Your task to perform on an android device: turn off location history Image 0: 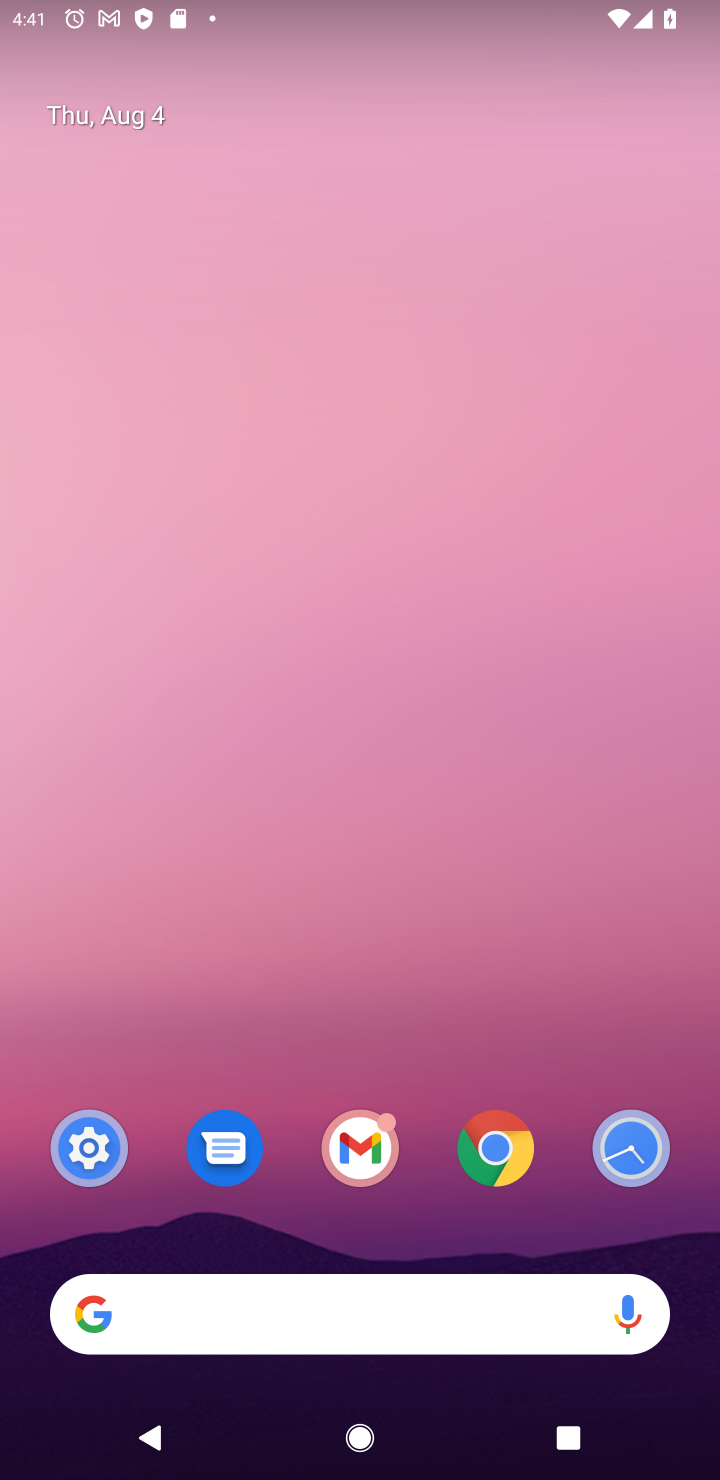
Step 0: drag from (560, 1219) to (527, 438)
Your task to perform on an android device: turn off location history Image 1: 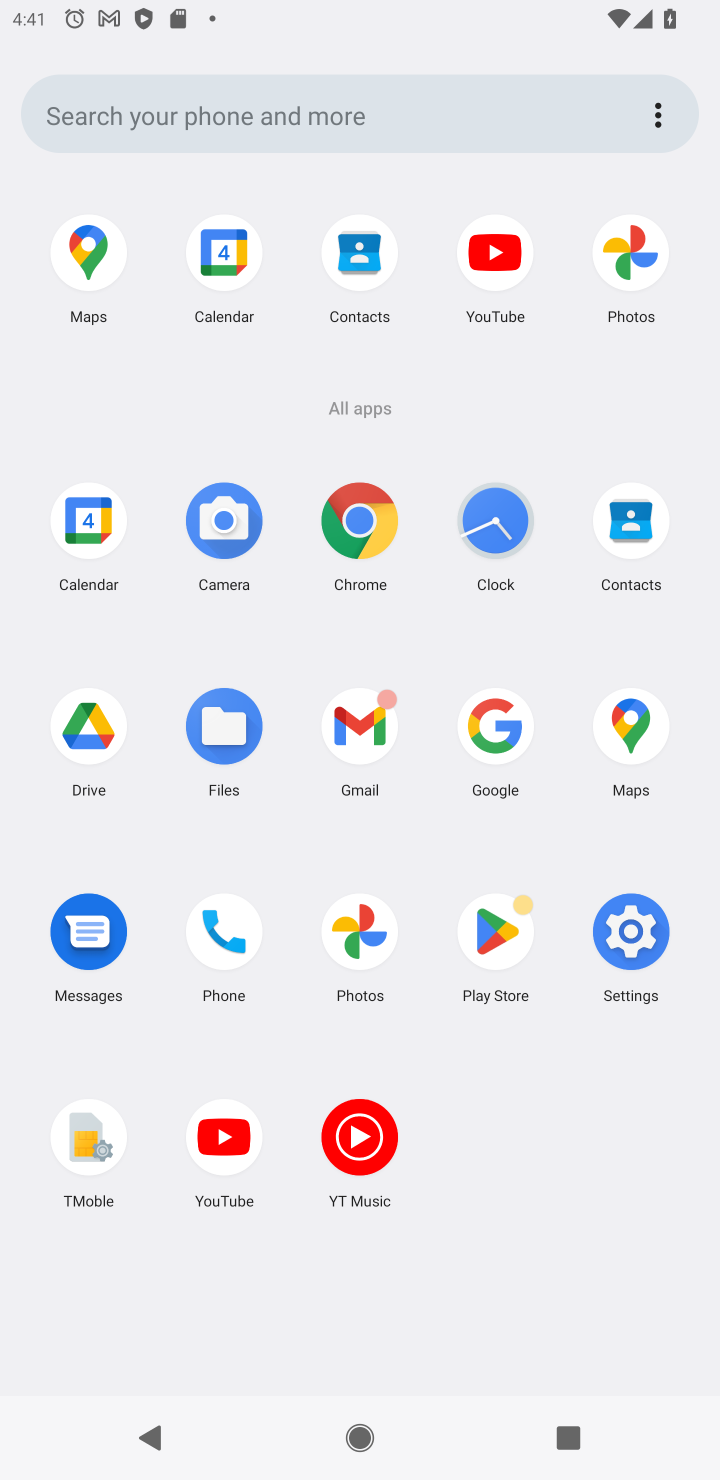
Step 1: click (636, 715)
Your task to perform on an android device: turn off location history Image 2: 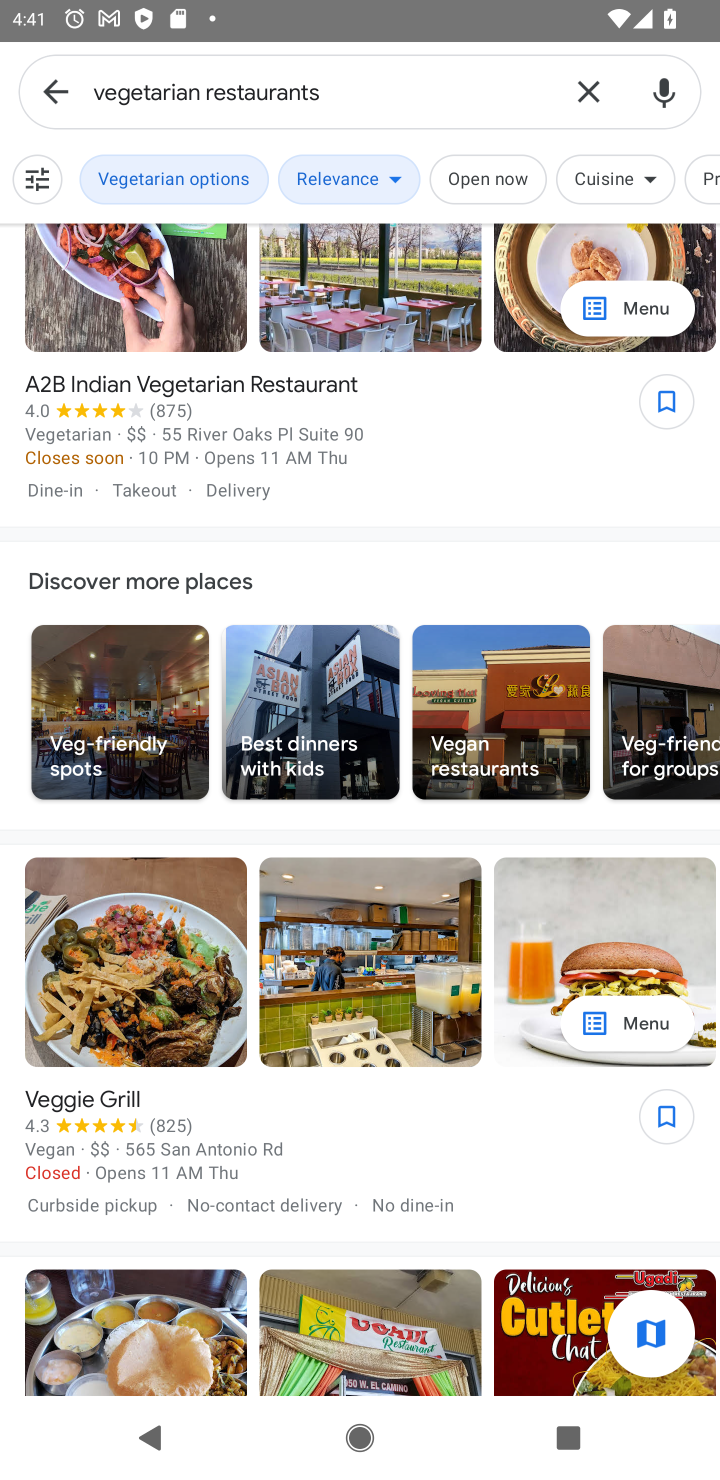
Step 2: click (585, 87)
Your task to perform on an android device: turn off location history Image 3: 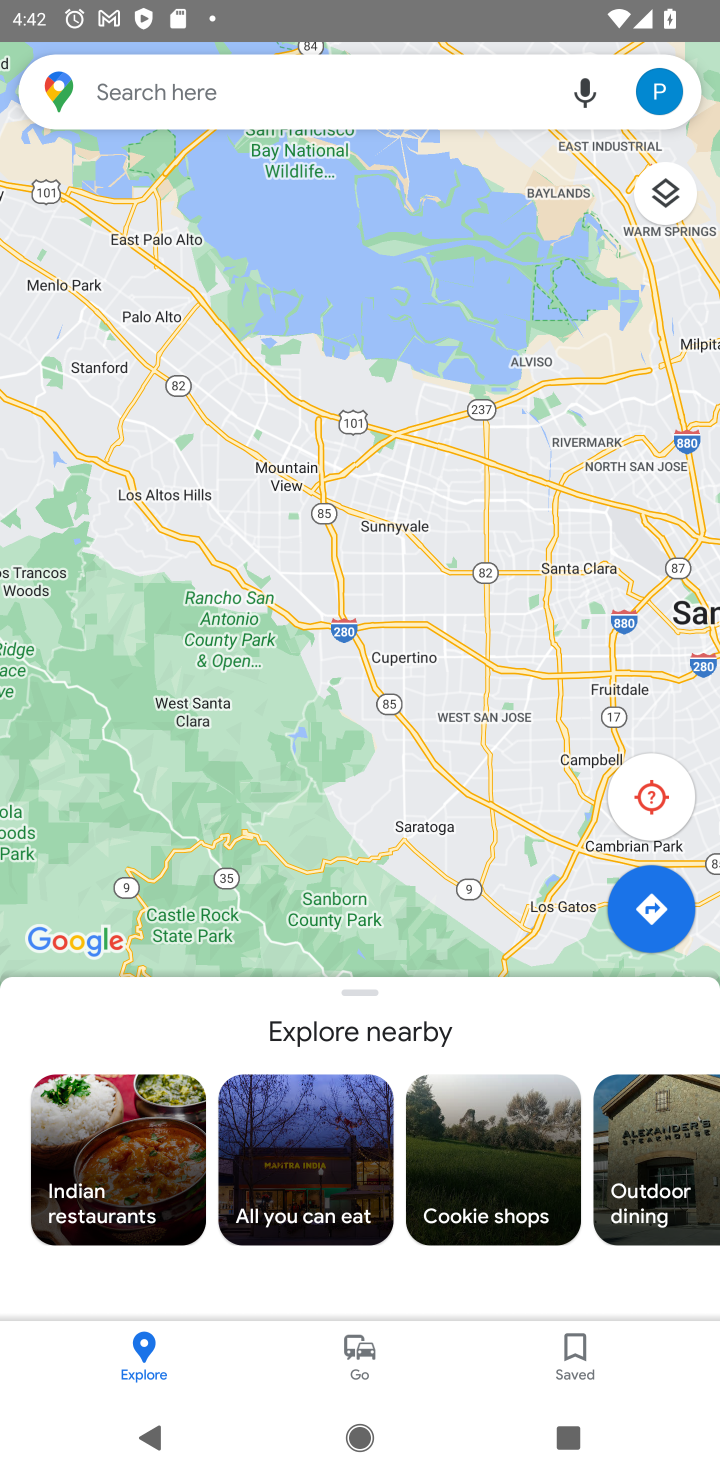
Step 3: click (654, 93)
Your task to perform on an android device: turn off location history Image 4: 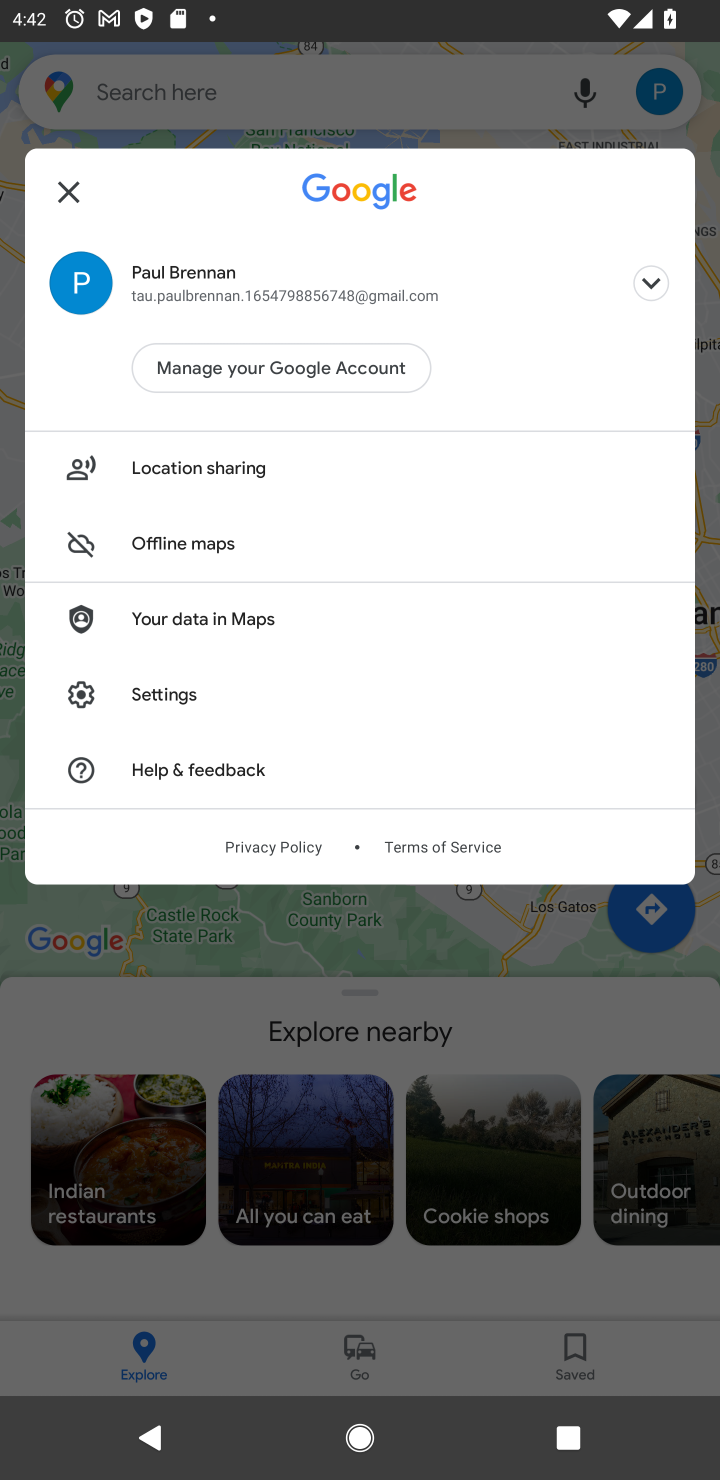
Step 4: click (145, 688)
Your task to perform on an android device: turn off location history Image 5: 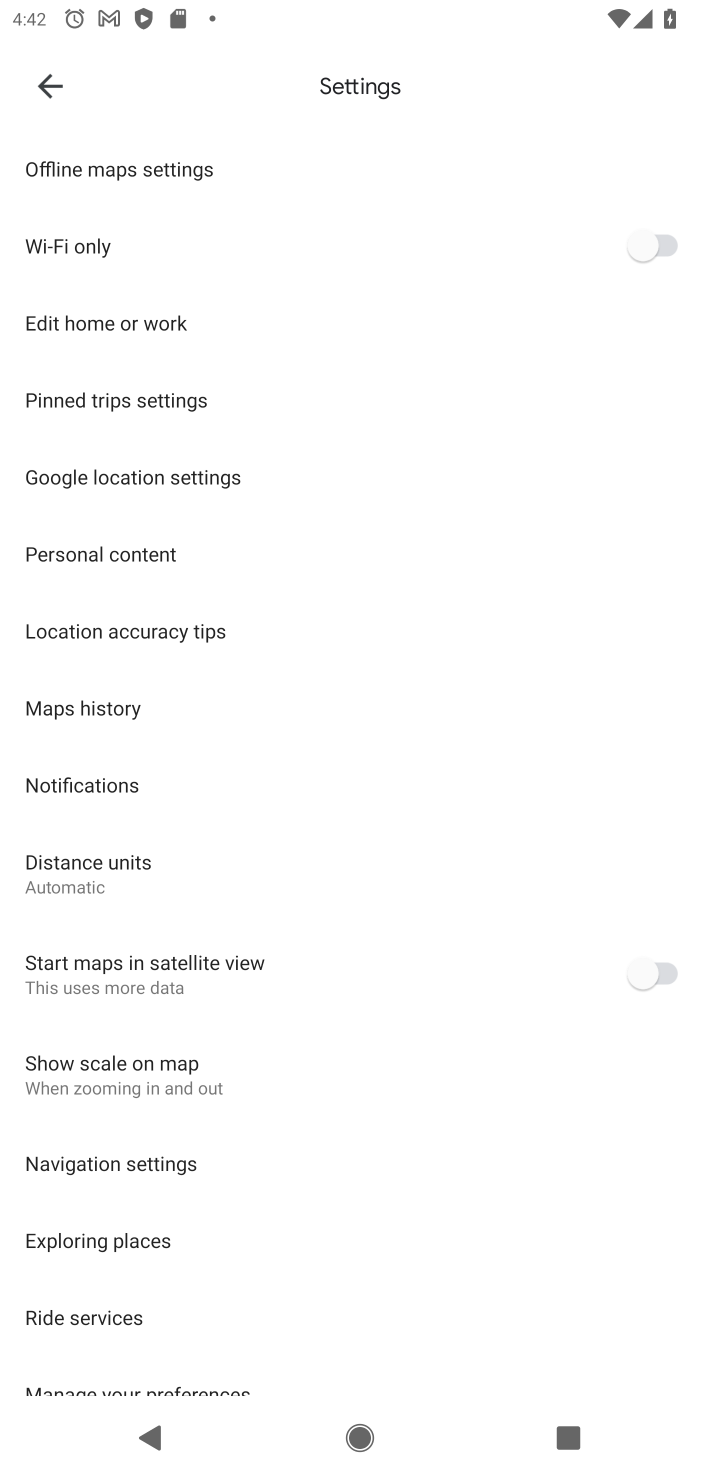
Step 5: click (98, 552)
Your task to perform on an android device: turn off location history Image 6: 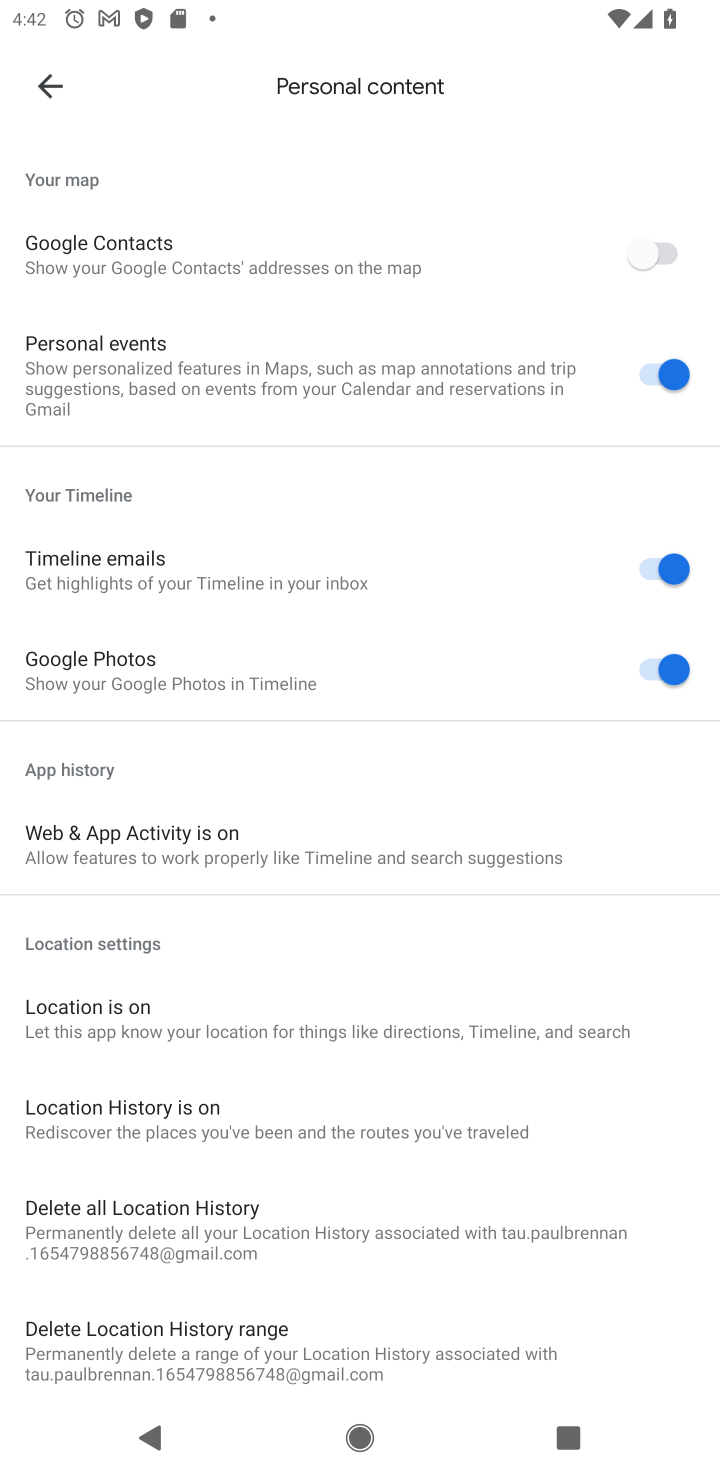
Step 6: drag from (561, 1197) to (545, 537)
Your task to perform on an android device: turn off location history Image 7: 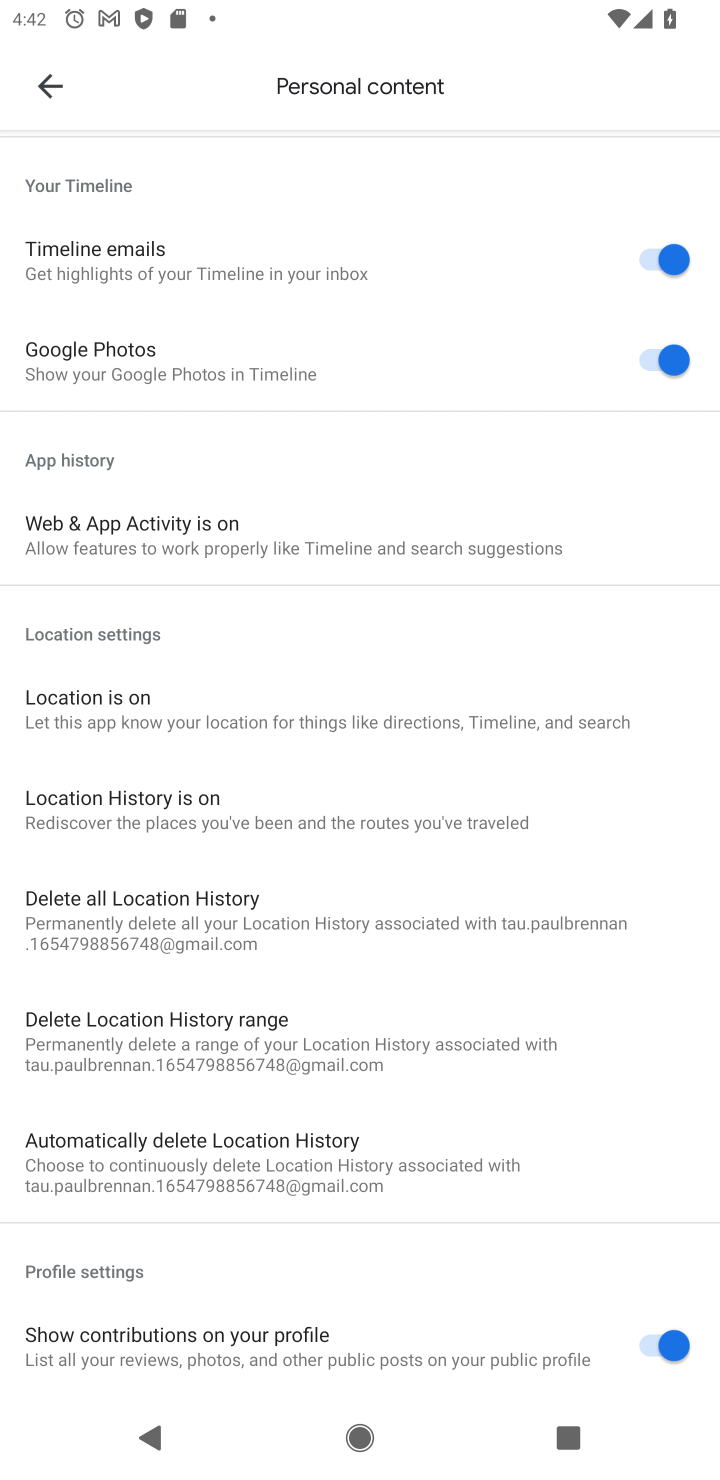
Step 7: click (127, 800)
Your task to perform on an android device: turn off location history Image 8: 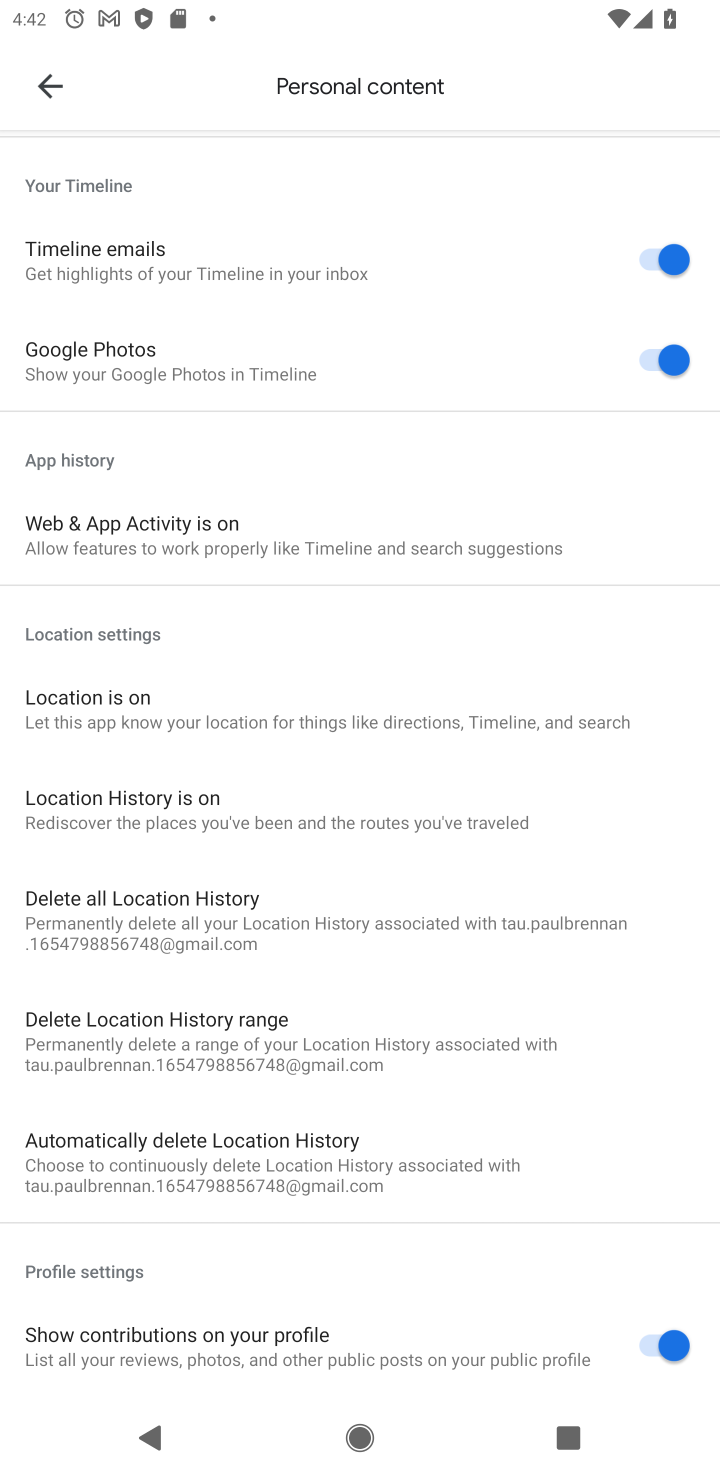
Step 8: click (128, 810)
Your task to perform on an android device: turn off location history Image 9: 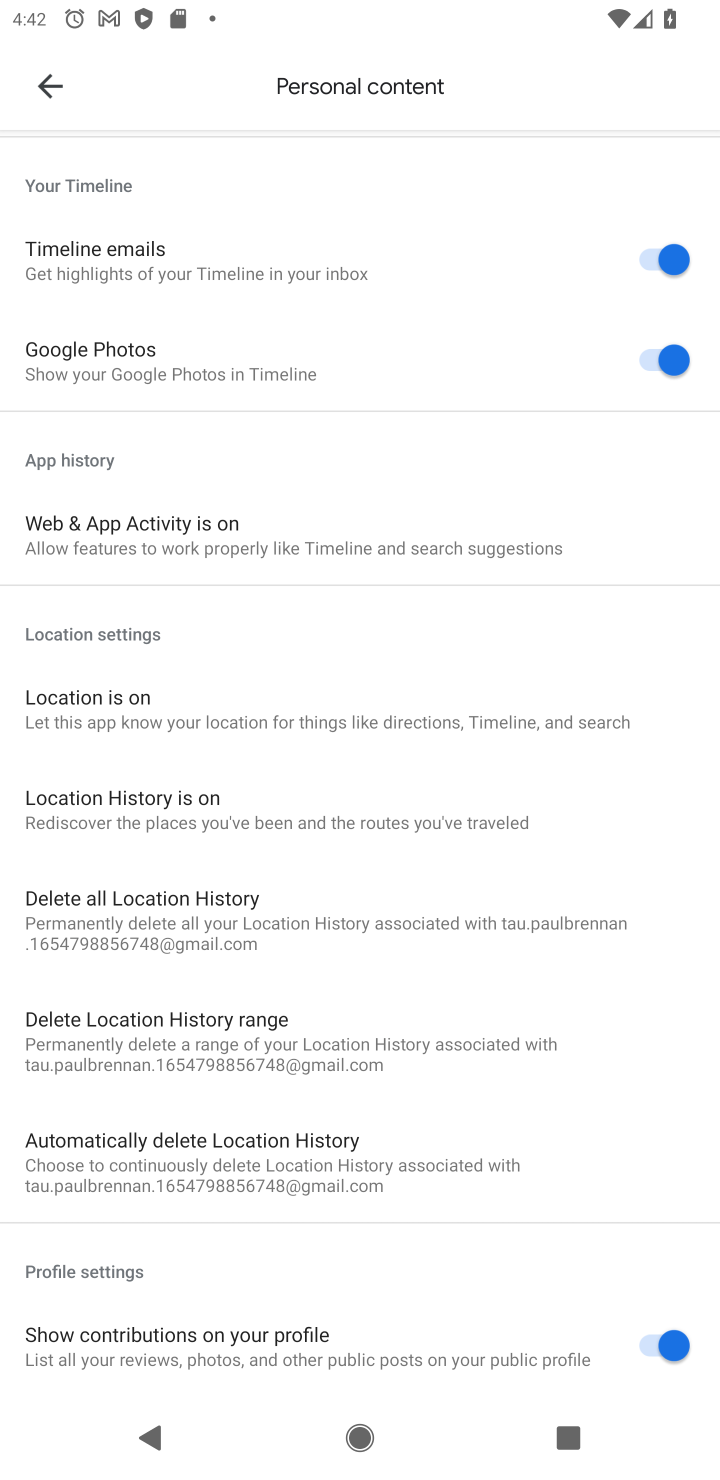
Step 9: click (147, 794)
Your task to perform on an android device: turn off location history Image 10: 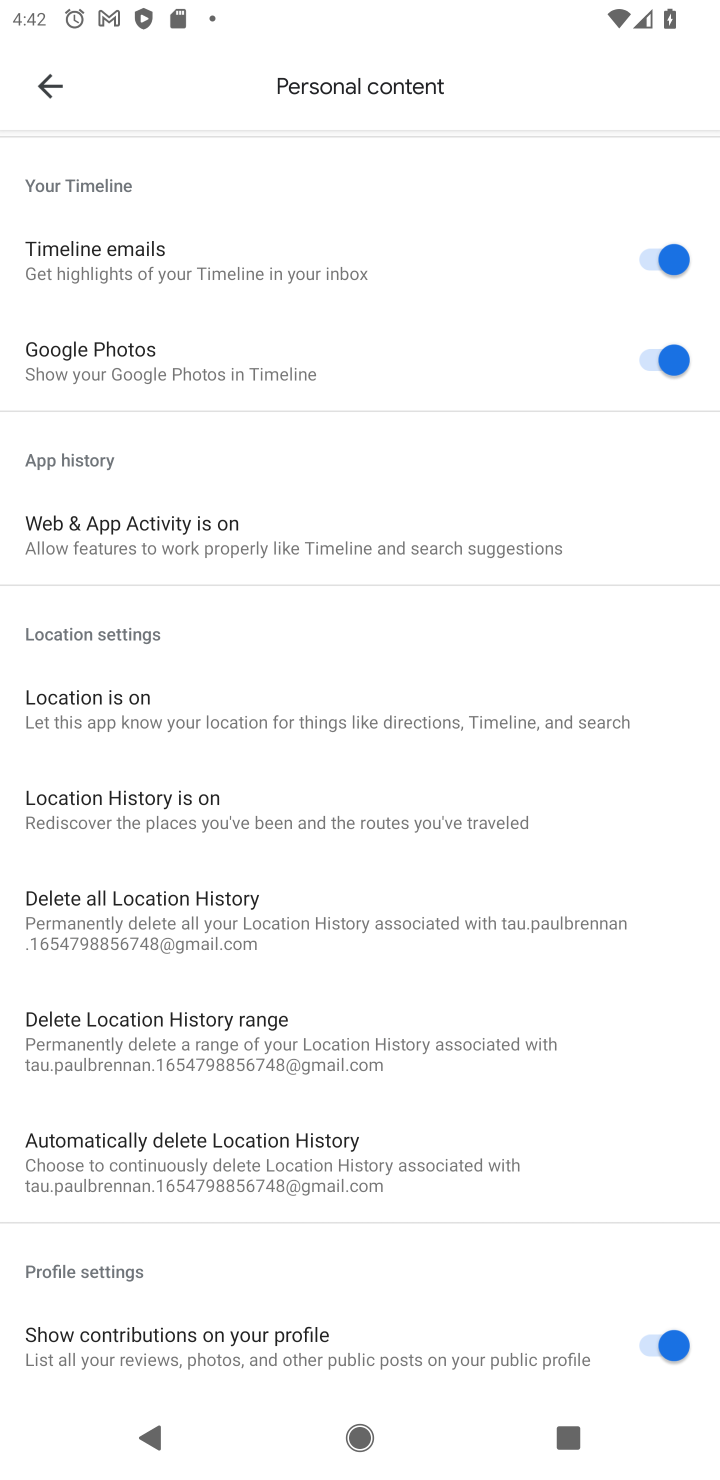
Step 10: task complete